Your task to perform on an android device: Open display settings Image 0: 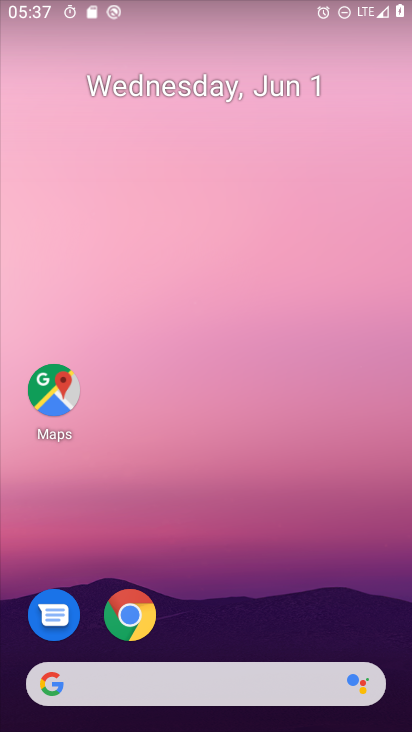
Step 0: drag from (338, 695) to (299, 127)
Your task to perform on an android device: Open display settings Image 1: 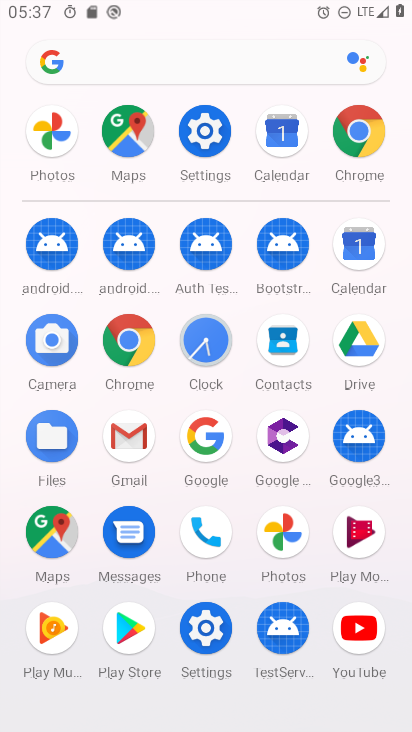
Step 1: click (207, 124)
Your task to perform on an android device: Open display settings Image 2: 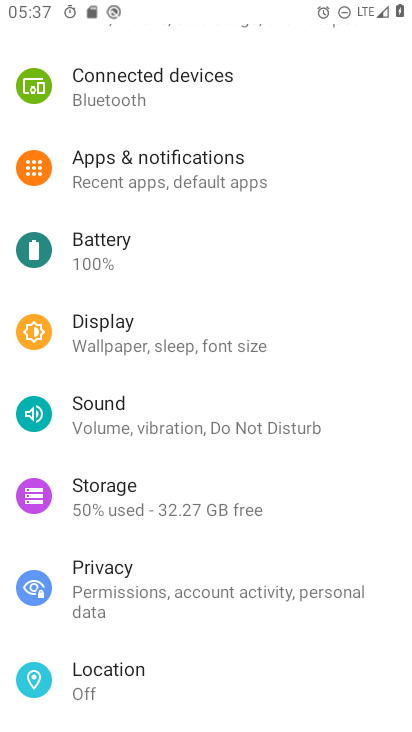
Step 2: click (122, 333)
Your task to perform on an android device: Open display settings Image 3: 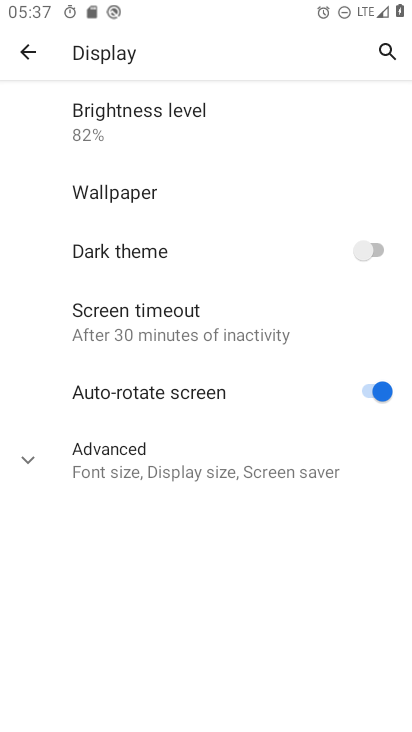
Step 3: task complete